Your task to perform on an android device: Go to ESPN.com Image 0: 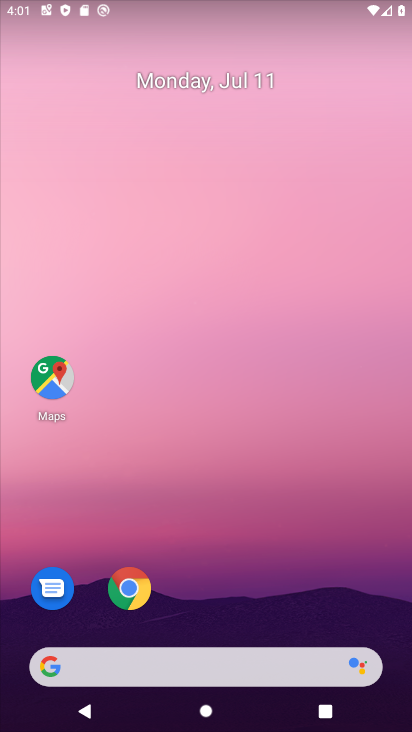
Step 0: drag from (333, 616) to (353, 179)
Your task to perform on an android device: Go to ESPN.com Image 1: 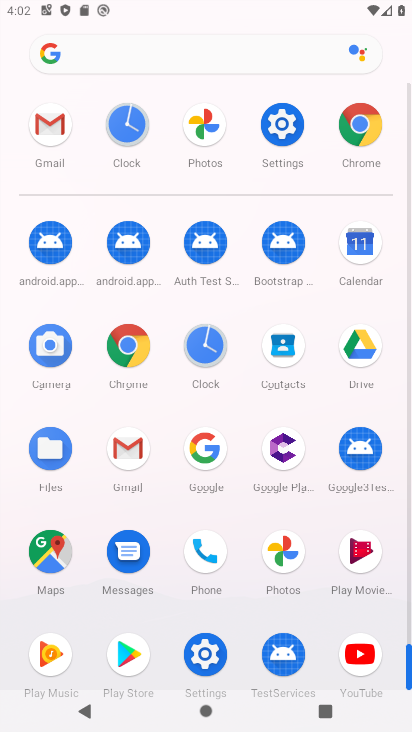
Step 1: click (134, 352)
Your task to perform on an android device: Go to ESPN.com Image 2: 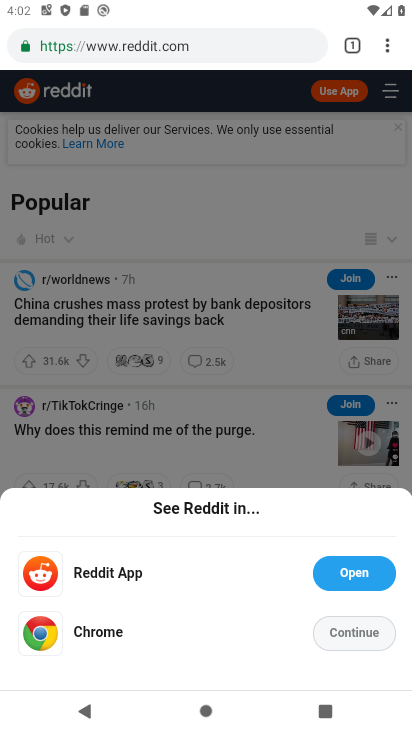
Step 2: click (181, 54)
Your task to perform on an android device: Go to ESPN.com Image 3: 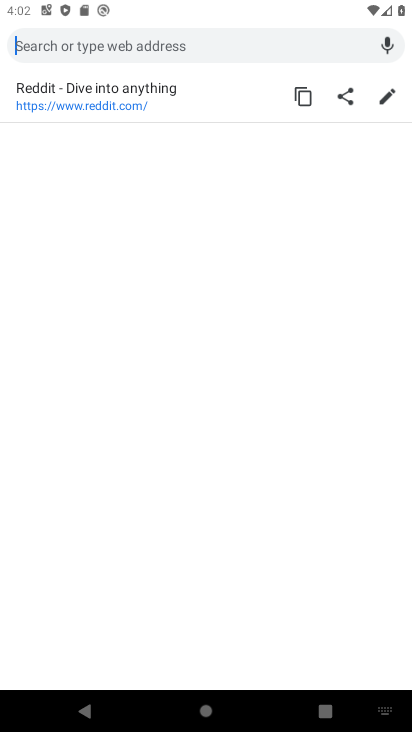
Step 3: type "espn.com"
Your task to perform on an android device: Go to ESPN.com Image 4: 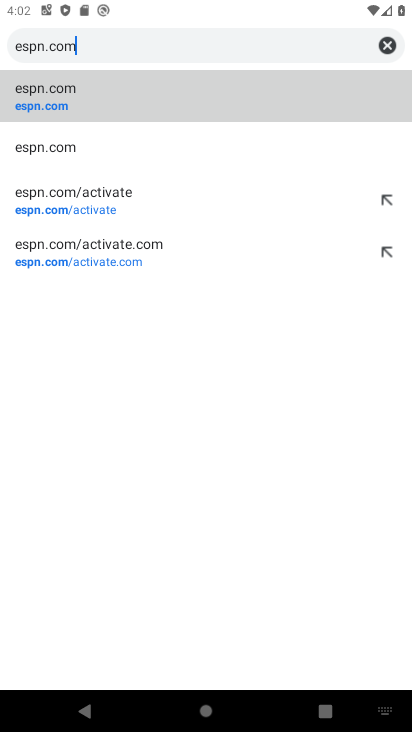
Step 4: click (197, 101)
Your task to perform on an android device: Go to ESPN.com Image 5: 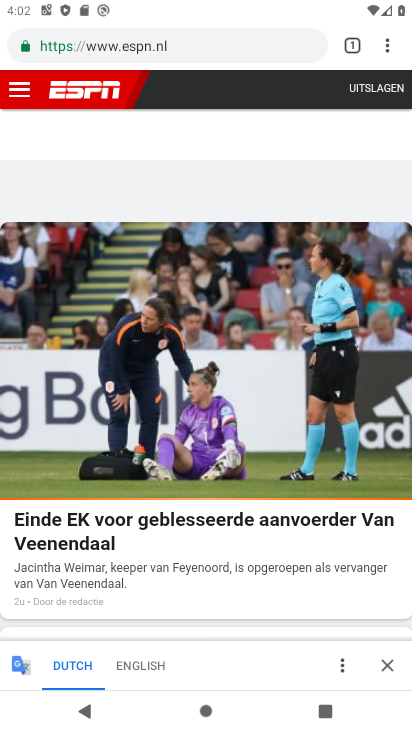
Step 5: task complete